Your task to perform on an android device: Is it going to rain tomorrow? Image 0: 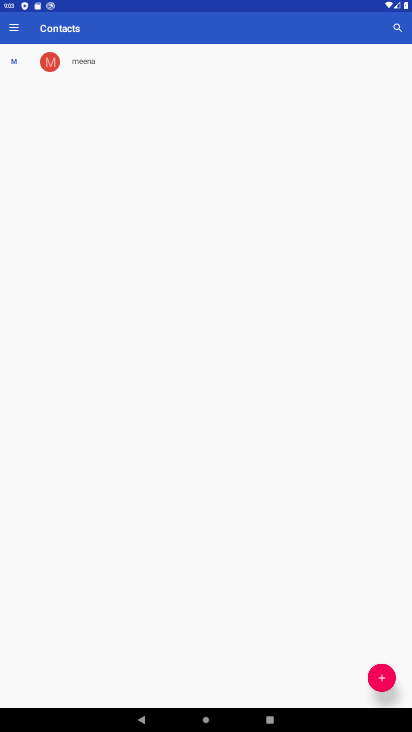
Step 0: press home button
Your task to perform on an android device: Is it going to rain tomorrow? Image 1: 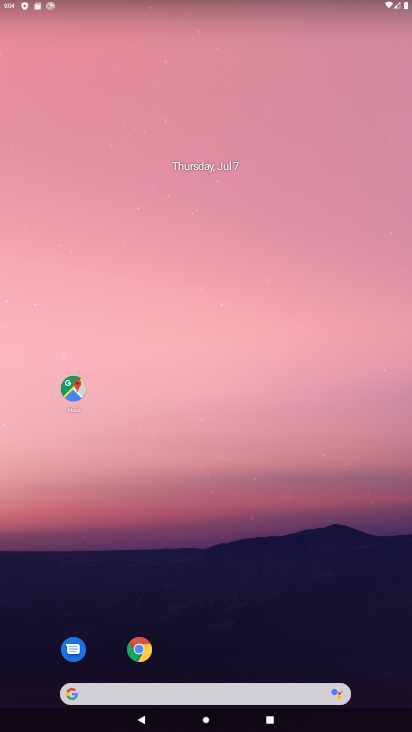
Step 1: click (233, 698)
Your task to perform on an android device: Is it going to rain tomorrow? Image 2: 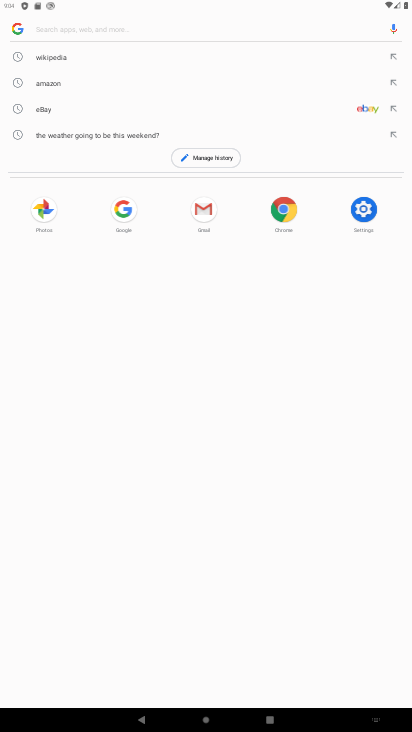
Step 2: type "Is it going to rain tomorrow?"
Your task to perform on an android device: Is it going to rain tomorrow? Image 3: 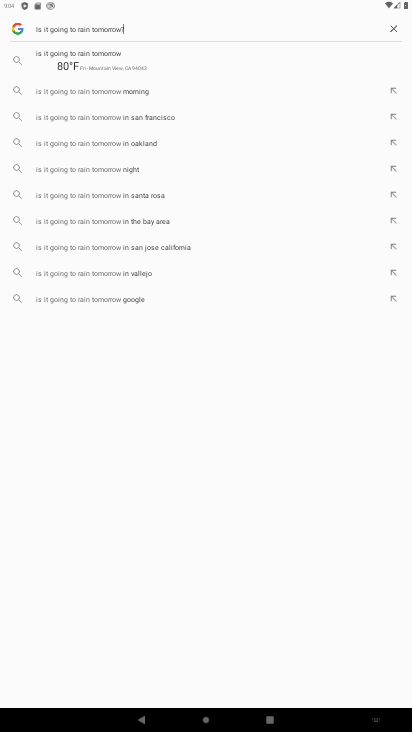
Step 3: press enter
Your task to perform on an android device: Is it going to rain tomorrow? Image 4: 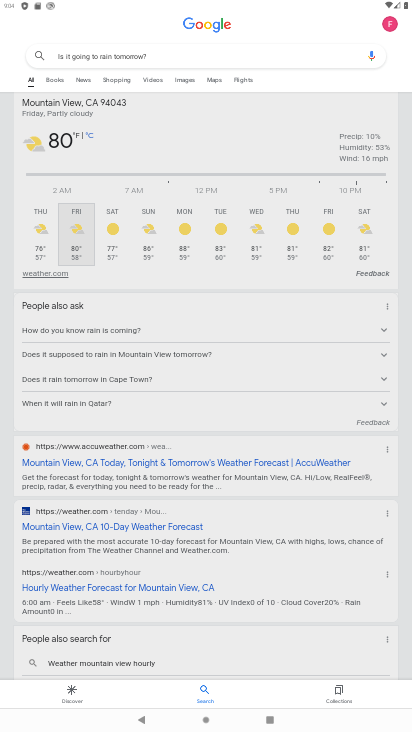
Step 4: task complete